Your task to perform on an android device: turn off improve location accuracy Image 0: 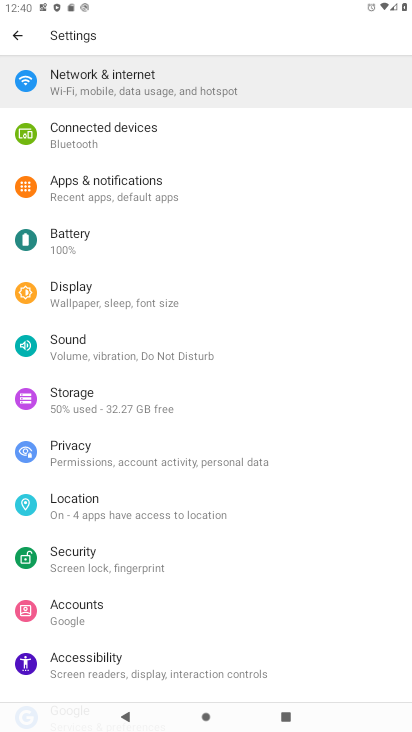
Step 0: press home button
Your task to perform on an android device: turn off improve location accuracy Image 1: 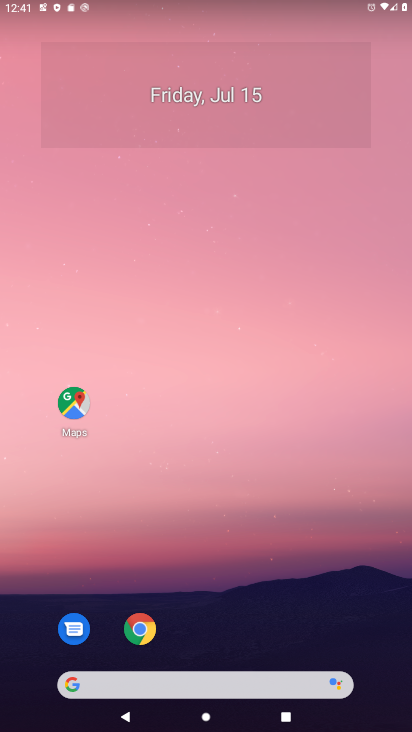
Step 1: drag from (230, 625) to (268, 7)
Your task to perform on an android device: turn off improve location accuracy Image 2: 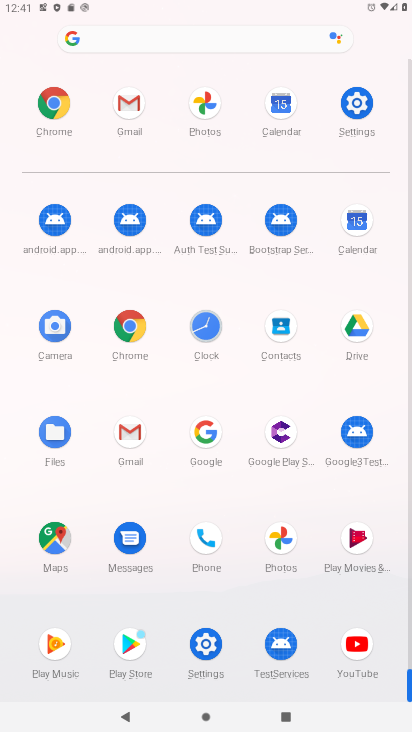
Step 2: click (352, 118)
Your task to perform on an android device: turn off improve location accuracy Image 3: 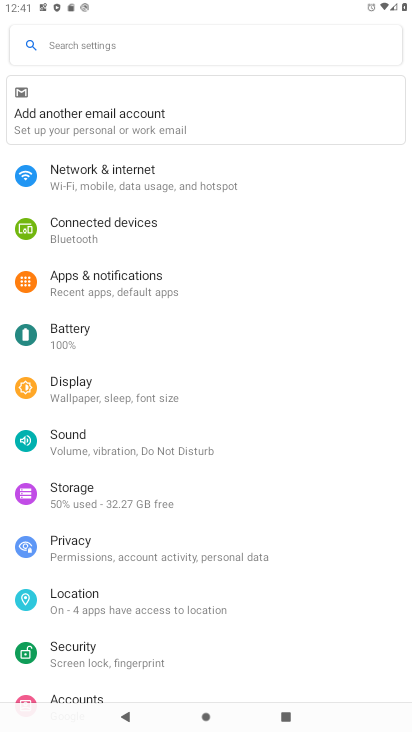
Step 3: click (89, 602)
Your task to perform on an android device: turn off improve location accuracy Image 4: 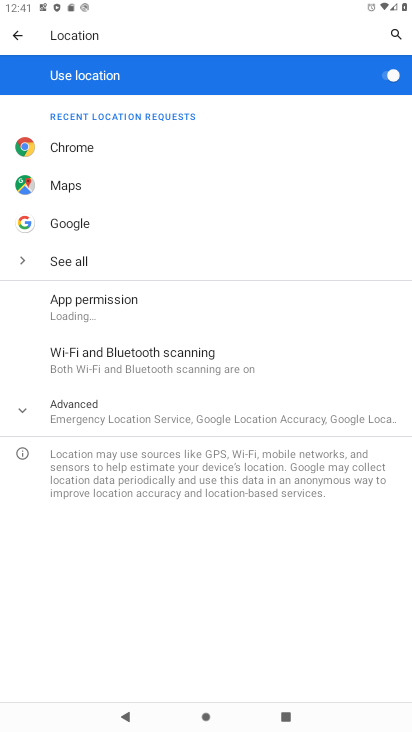
Step 4: click (82, 409)
Your task to perform on an android device: turn off improve location accuracy Image 5: 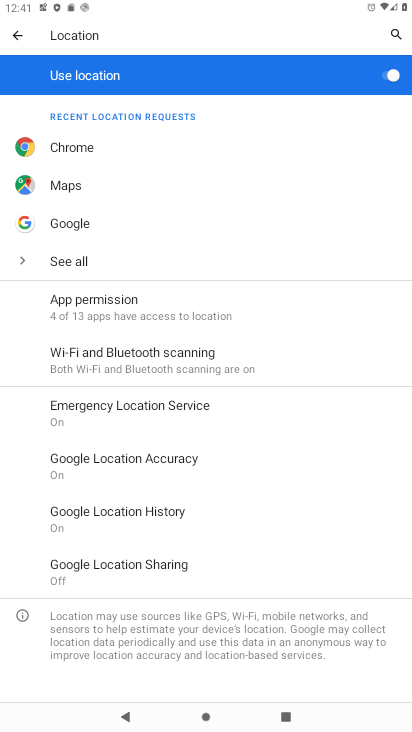
Step 5: click (165, 466)
Your task to perform on an android device: turn off improve location accuracy Image 6: 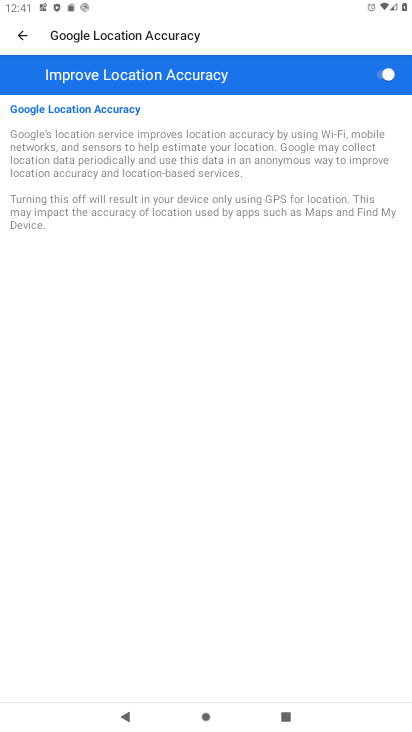
Step 6: click (381, 77)
Your task to perform on an android device: turn off improve location accuracy Image 7: 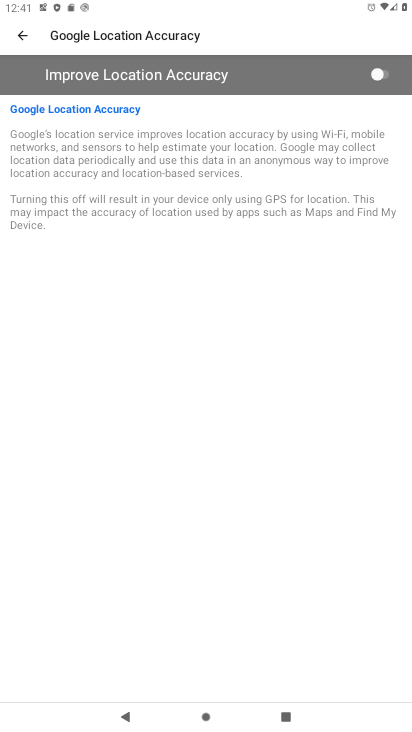
Step 7: task complete